Your task to perform on an android device: search for starred emails in the gmail app Image 0: 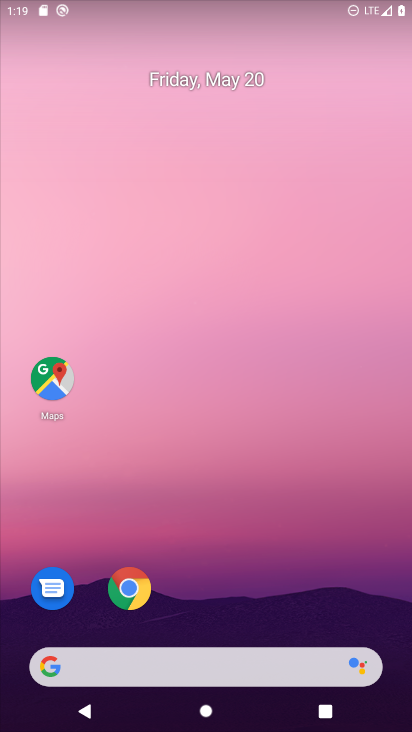
Step 0: drag from (381, 626) to (318, 100)
Your task to perform on an android device: search for starred emails in the gmail app Image 1: 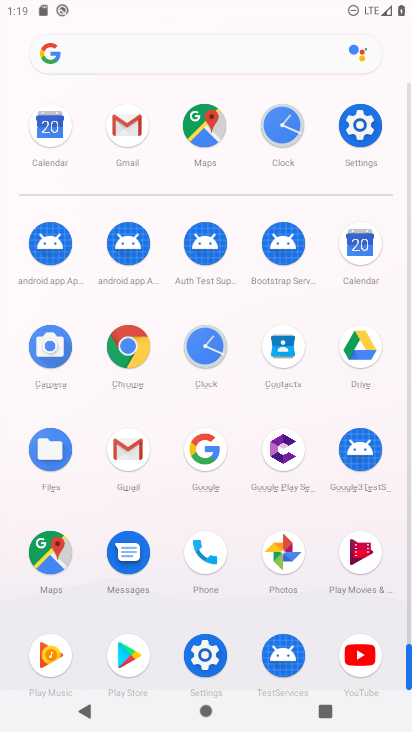
Step 1: click (127, 447)
Your task to perform on an android device: search for starred emails in the gmail app Image 2: 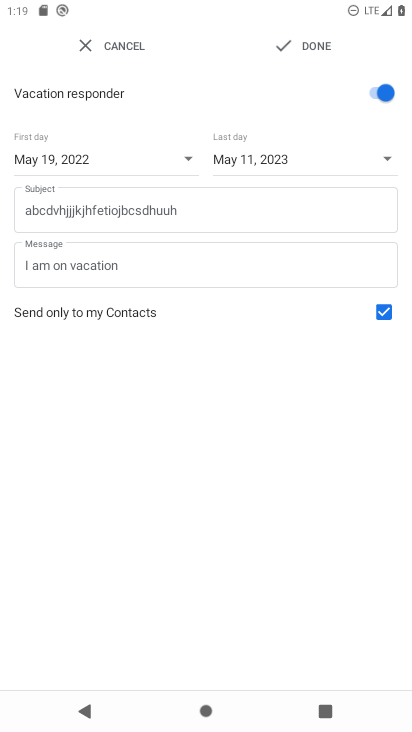
Step 2: click (84, 38)
Your task to perform on an android device: search for starred emails in the gmail app Image 3: 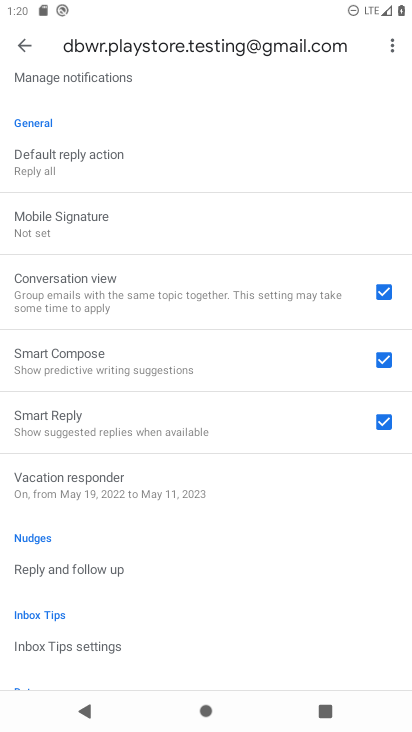
Step 3: press back button
Your task to perform on an android device: search for starred emails in the gmail app Image 4: 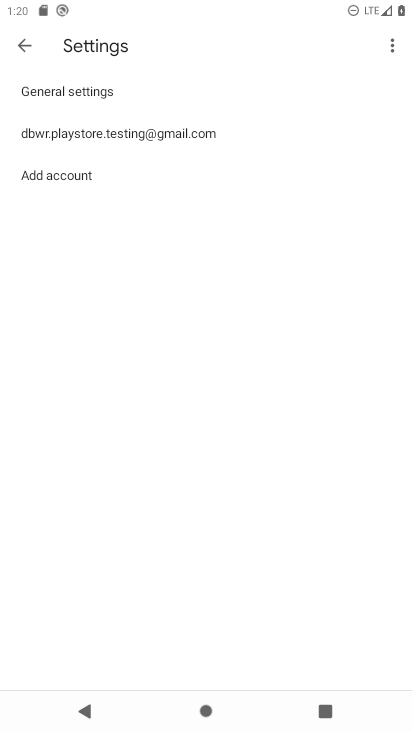
Step 4: press back button
Your task to perform on an android device: search for starred emails in the gmail app Image 5: 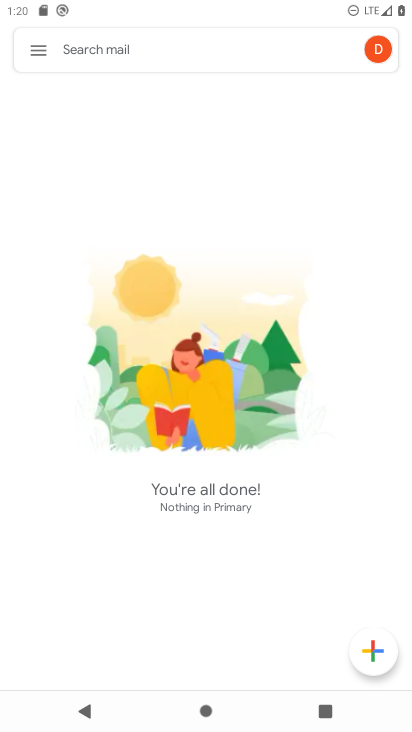
Step 5: click (35, 53)
Your task to perform on an android device: search for starred emails in the gmail app Image 6: 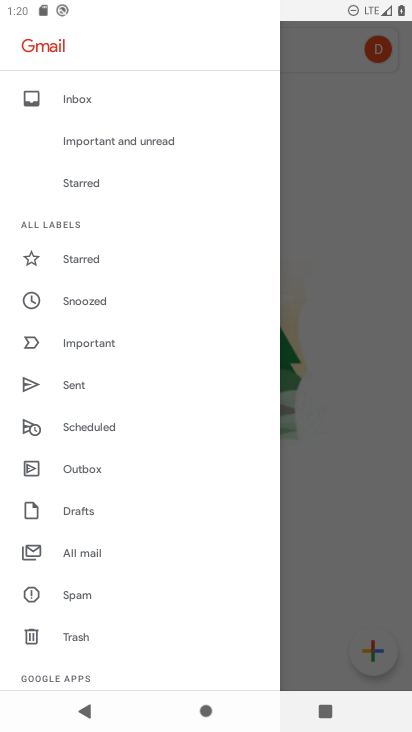
Step 6: click (74, 256)
Your task to perform on an android device: search for starred emails in the gmail app Image 7: 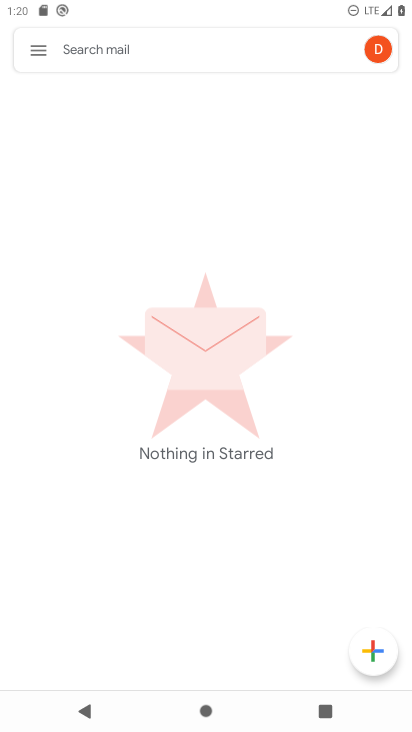
Step 7: task complete